Your task to perform on an android device: Go to Google maps Image 0: 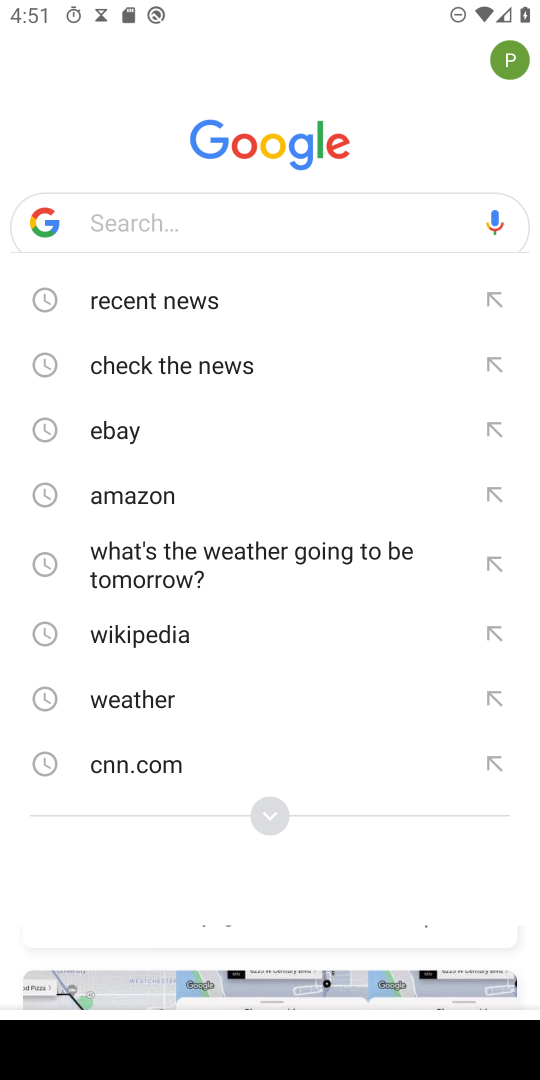
Step 0: press home button
Your task to perform on an android device: Go to Google maps Image 1: 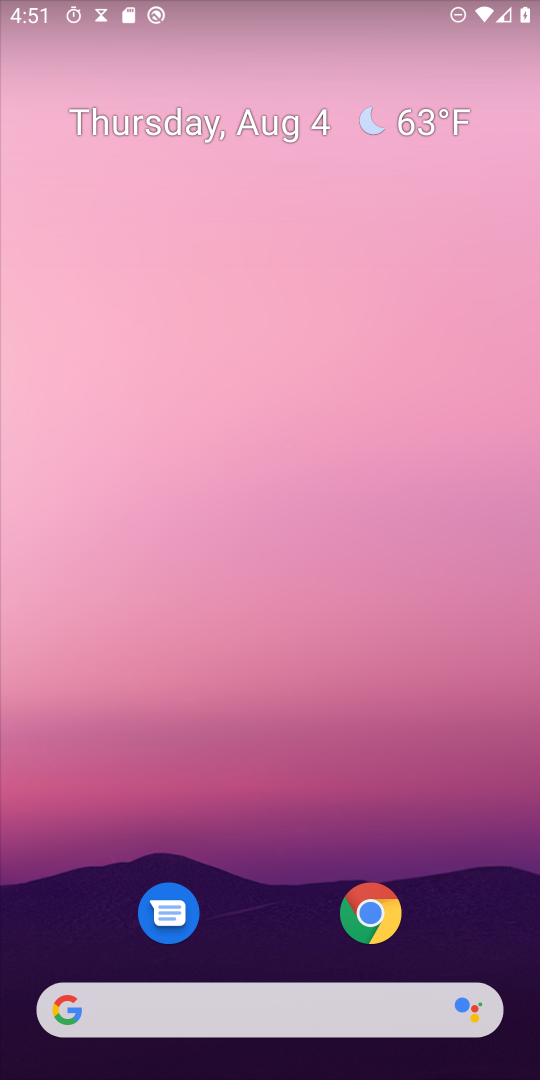
Step 1: drag from (351, 890) to (310, 24)
Your task to perform on an android device: Go to Google maps Image 2: 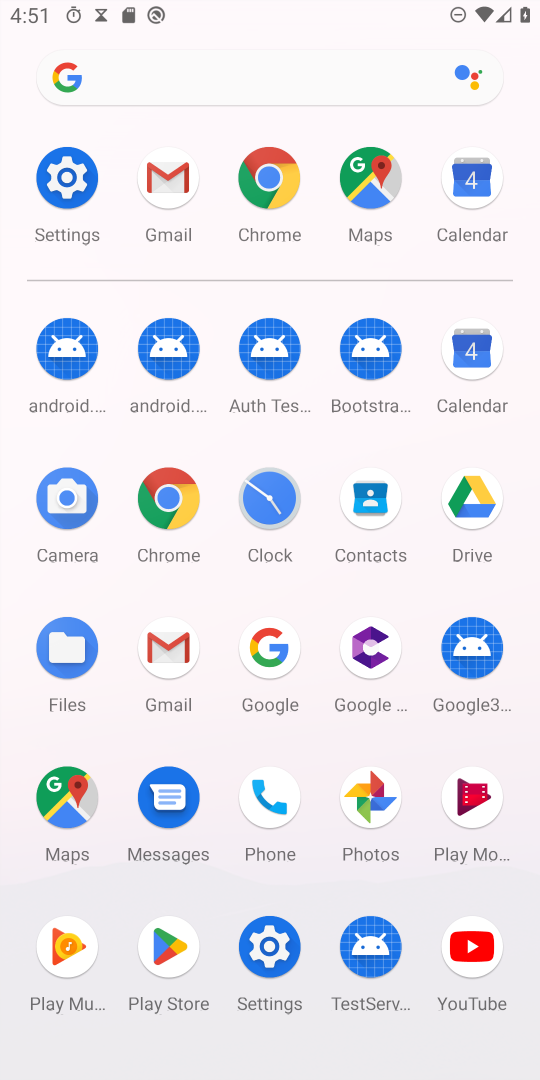
Step 2: click (59, 817)
Your task to perform on an android device: Go to Google maps Image 3: 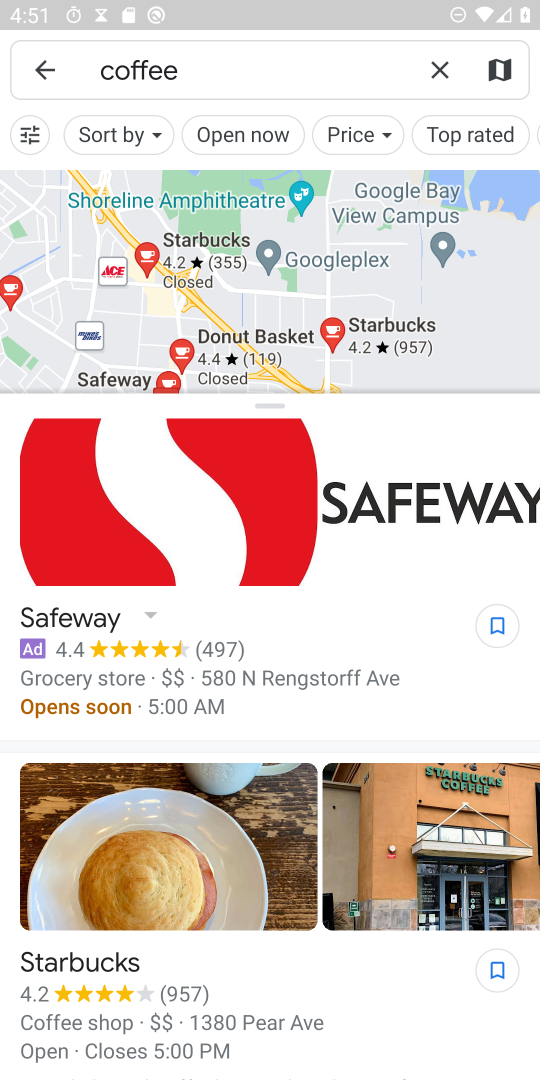
Step 3: task complete